Your task to perform on an android device: Open calendar and show me the third week of next month Image 0: 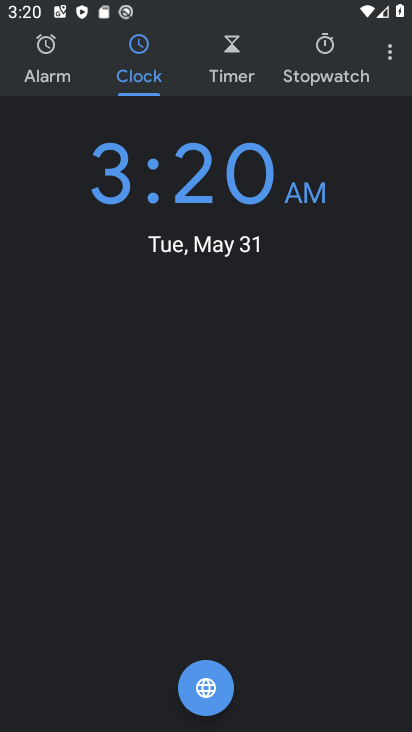
Step 0: press home button
Your task to perform on an android device: Open calendar and show me the third week of next month Image 1: 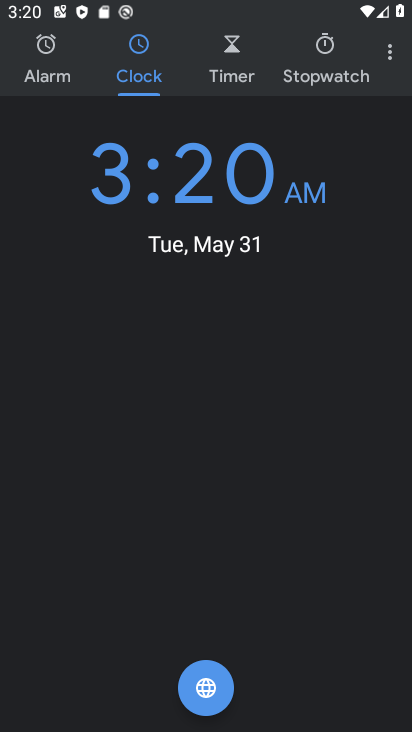
Step 1: press home button
Your task to perform on an android device: Open calendar and show me the third week of next month Image 2: 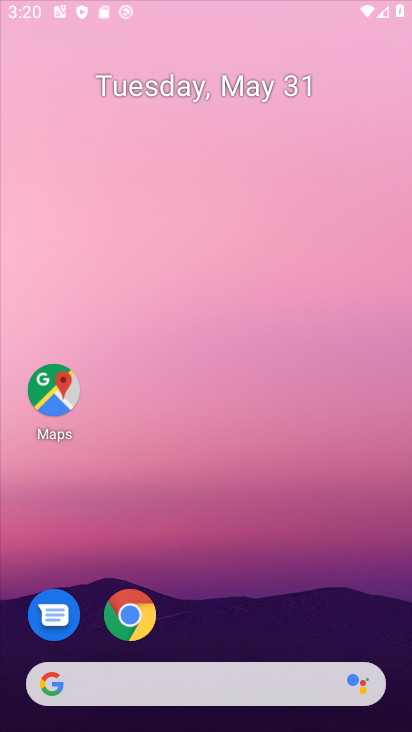
Step 2: press home button
Your task to perform on an android device: Open calendar and show me the third week of next month Image 3: 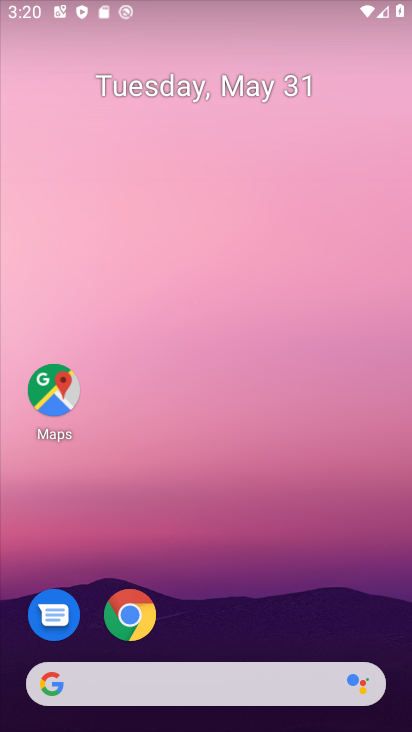
Step 3: press home button
Your task to perform on an android device: Open calendar and show me the third week of next month Image 4: 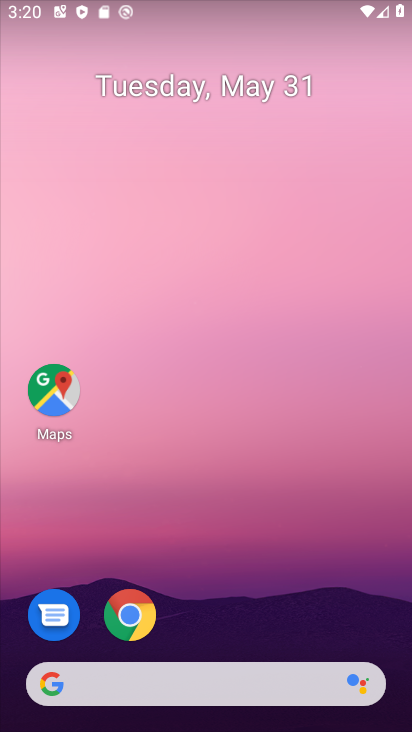
Step 4: drag from (230, 671) to (127, 110)
Your task to perform on an android device: Open calendar and show me the third week of next month Image 5: 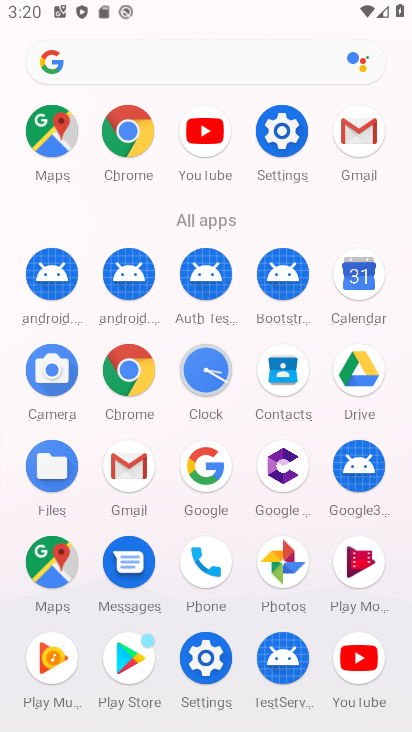
Step 5: click (357, 278)
Your task to perform on an android device: Open calendar and show me the third week of next month Image 6: 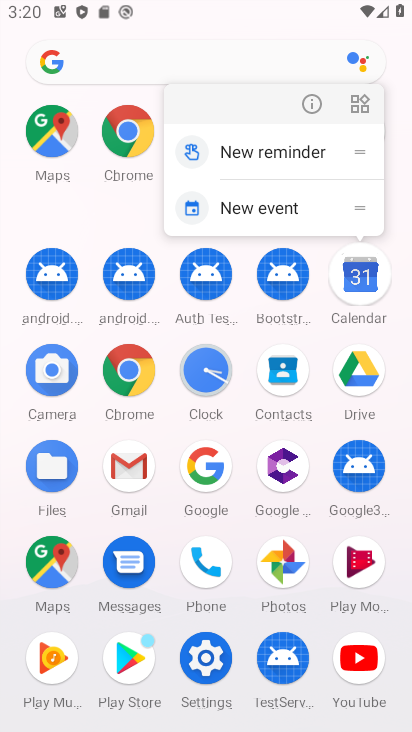
Step 6: click (363, 274)
Your task to perform on an android device: Open calendar and show me the third week of next month Image 7: 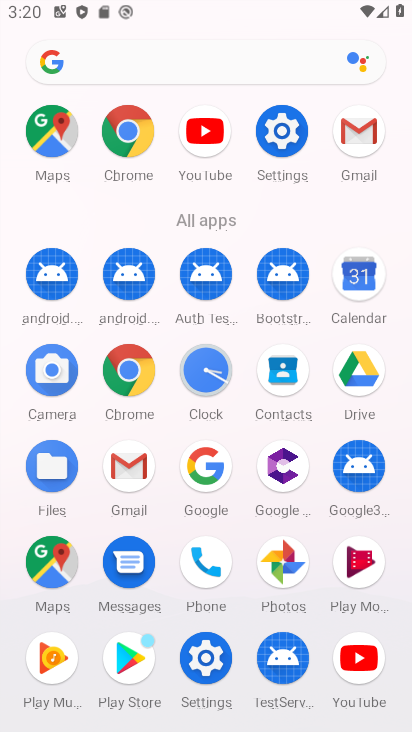
Step 7: click (363, 274)
Your task to perform on an android device: Open calendar and show me the third week of next month Image 8: 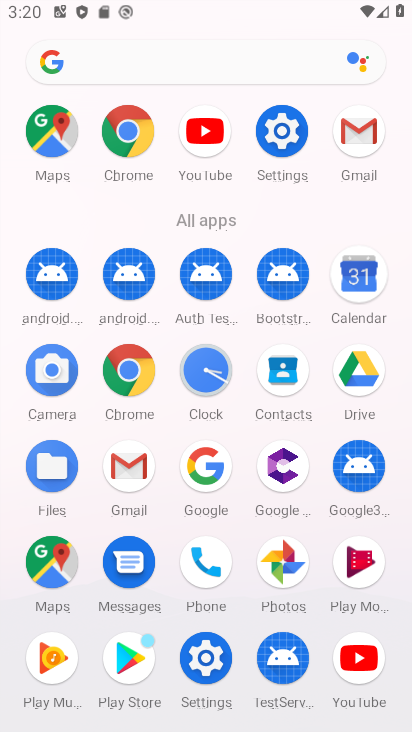
Step 8: click (364, 273)
Your task to perform on an android device: Open calendar and show me the third week of next month Image 9: 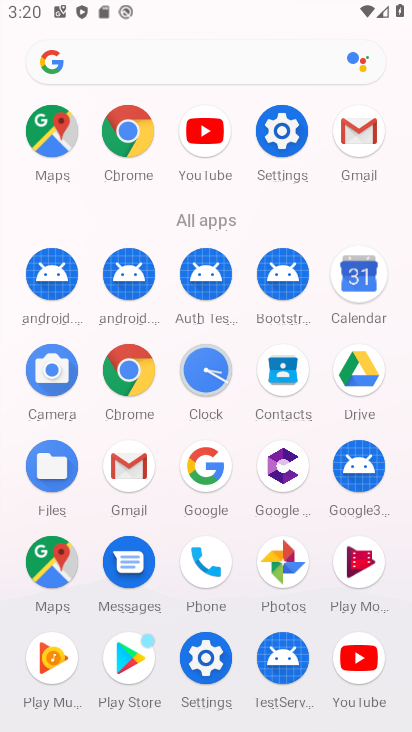
Step 9: click (364, 272)
Your task to perform on an android device: Open calendar and show me the third week of next month Image 10: 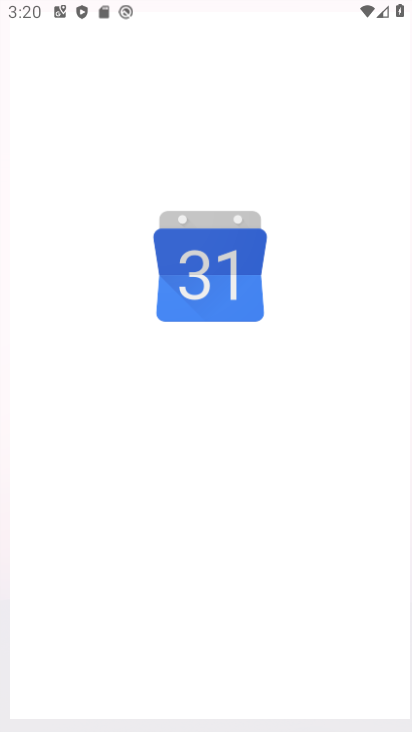
Step 10: click (354, 264)
Your task to perform on an android device: Open calendar and show me the third week of next month Image 11: 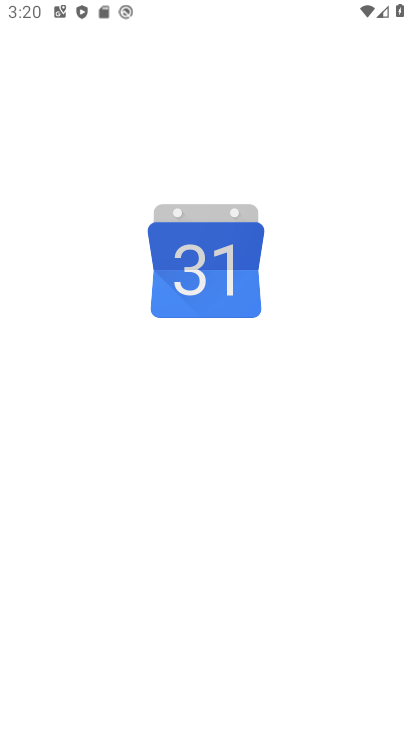
Step 11: click (354, 264)
Your task to perform on an android device: Open calendar and show me the third week of next month Image 12: 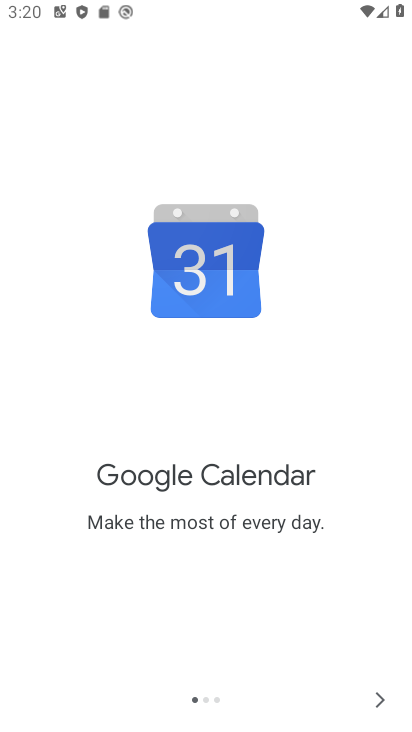
Step 12: click (379, 691)
Your task to perform on an android device: Open calendar and show me the third week of next month Image 13: 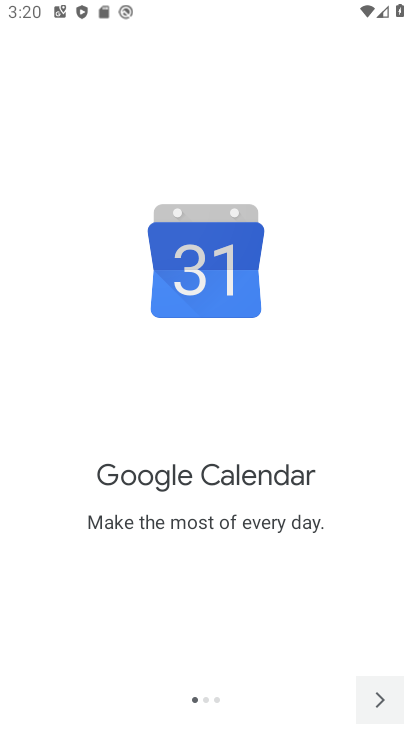
Step 13: click (379, 691)
Your task to perform on an android device: Open calendar and show me the third week of next month Image 14: 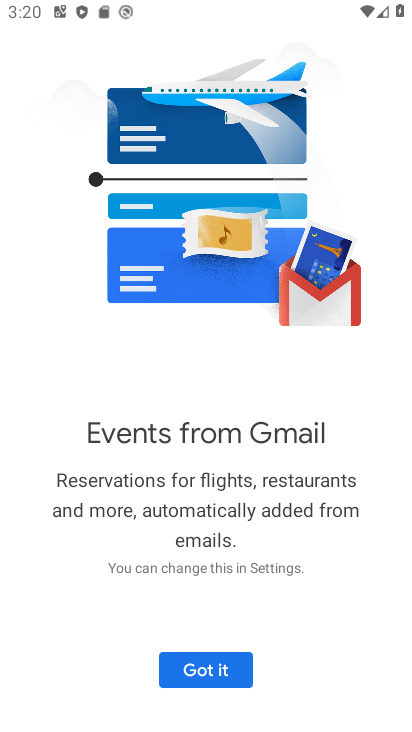
Step 14: click (379, 691)
Your task to perform on an android device: Open calendar and show me the third week of next month Image 15: 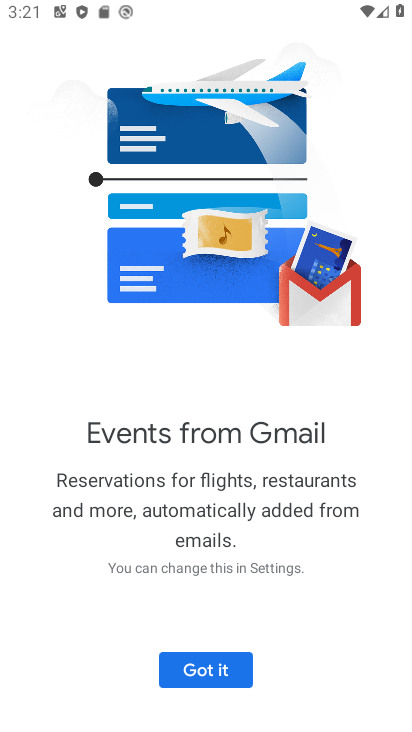
Step 15: click (206, 674)
Your task to perform on an android device: Open calendar and show me the third week of next month Image 16: 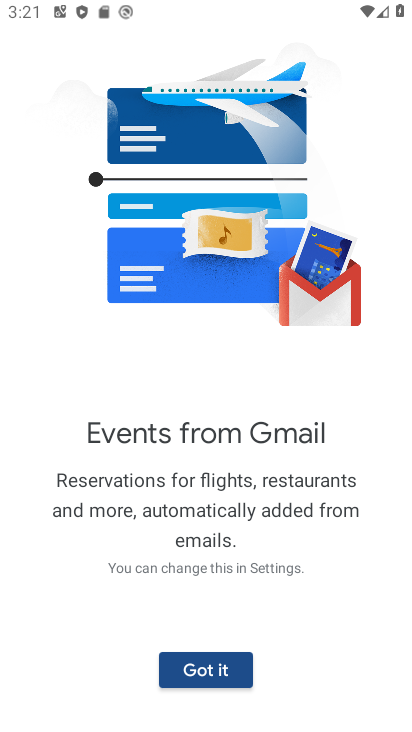
Step 16: click (200, 678)
Your task to perform on an android device: Open calendar and show me the third week of next month Image 17: 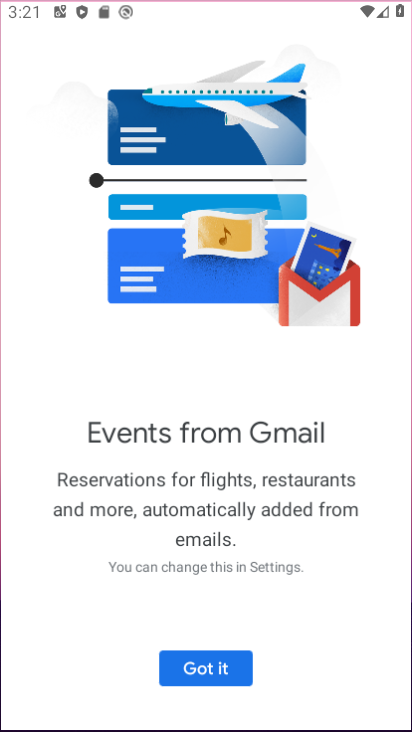
Step 17: click (200, 678)
Your task to perform on an android device: Open calendar and show me the third week of next month Image 18: 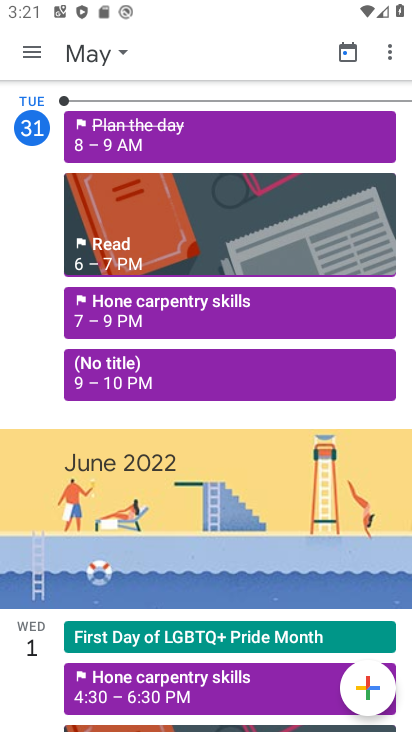
Step 18: click (121, 53)
Your task to perform on an android device: Open calendar and show me the third week of next month Image 19: 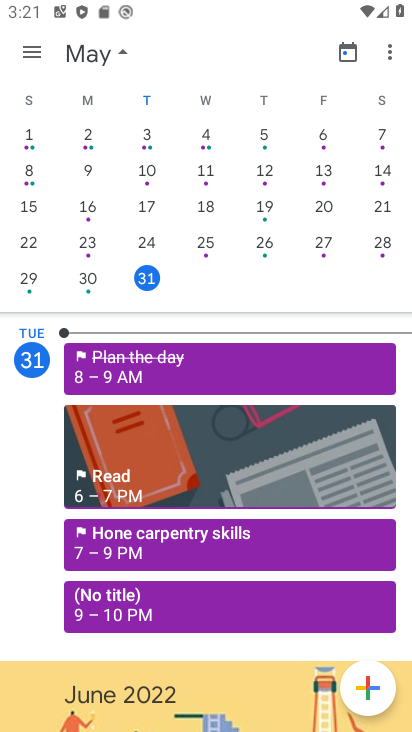
Step 19: drag from (252, 177) to (4, 266)
Your task to perform on an android device: Open calendar and show me the third week of next month Image 20: 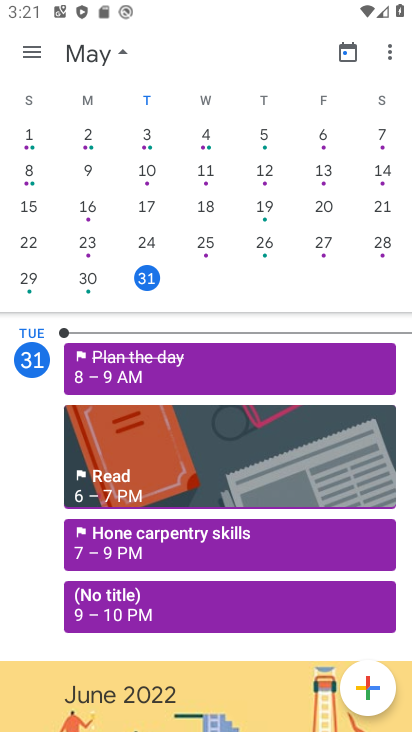
Step 20: drag from (284, 178) to (124, 305)
Your task to perform on an android device: Open calendar and show me the third week of next month Image 21: 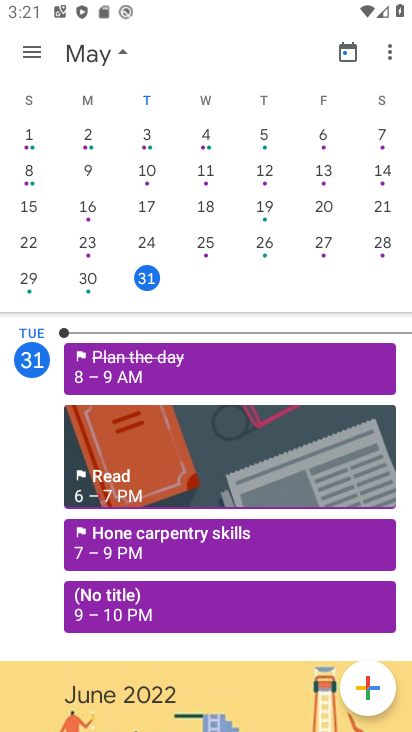
Step 21: drag from (231, 179) to (4, 248)
Your task to perform on an android device: Open calendar and show me the third week of next month Image 22: 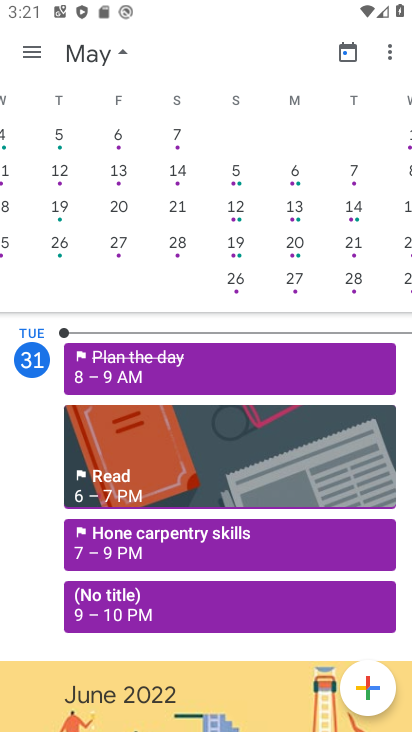
Step 22: drag from (294, 161) to (22, 177)
Your task to perform on an android device: Open calendar and show me the third week of next month Image 23: 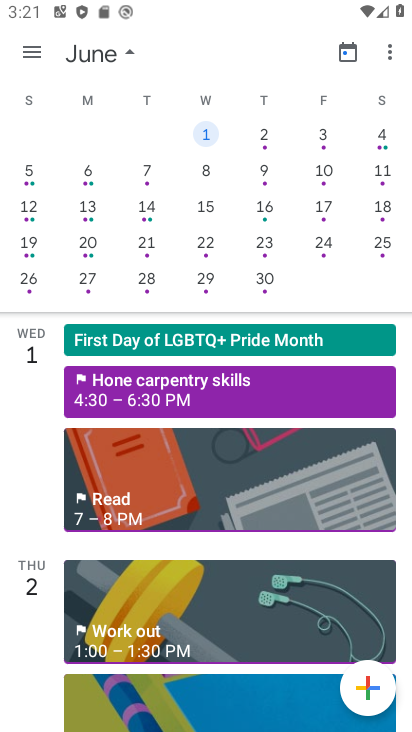
Step 23: click (204, 205)
Your task to perform on an android device: Open calendar and show me the third week of next month Image 24: 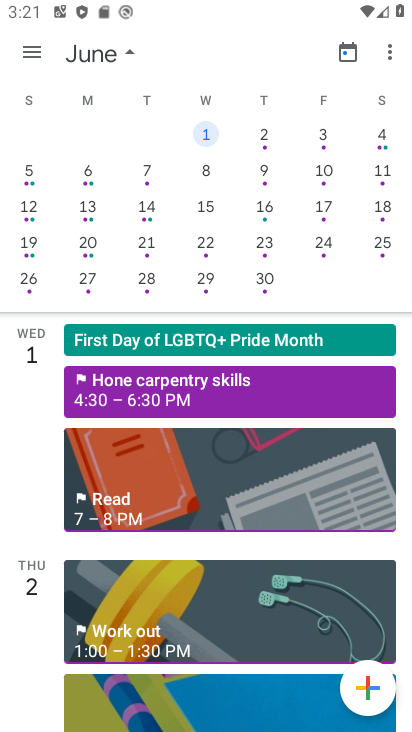
Step 24: click (204, 205)
Your task to perform on an android device: Open calendar and show me the third week of next month Image 25: 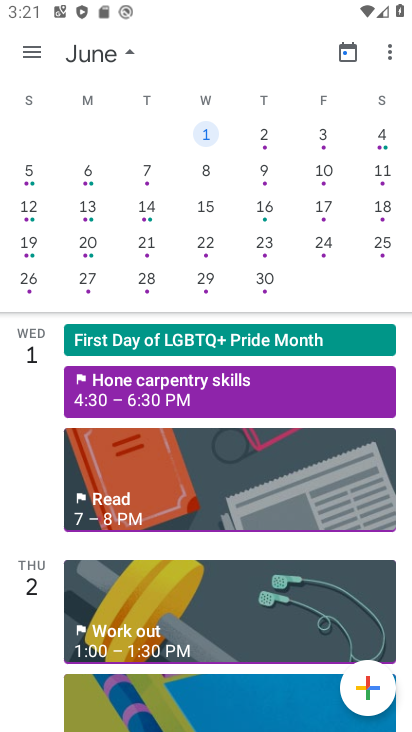
Step 25: click (204, 205)
Your task to perform on an android device: Open calendar and show me the third week of next month Image 26: 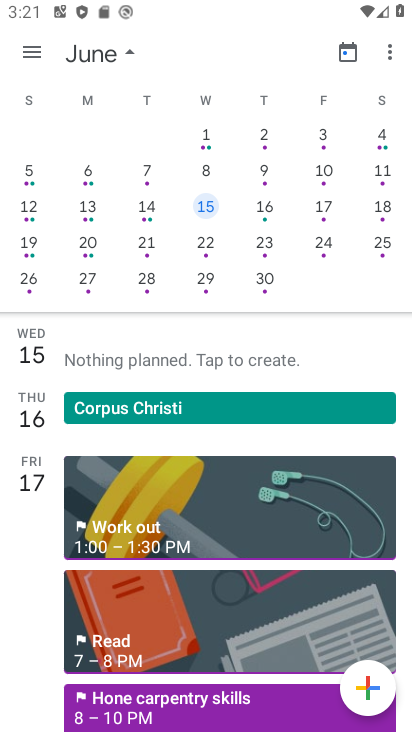
Step 26: click (204, 205)
Your task to perform on an android device: Open calendar and show me the third week of next month Image 27: 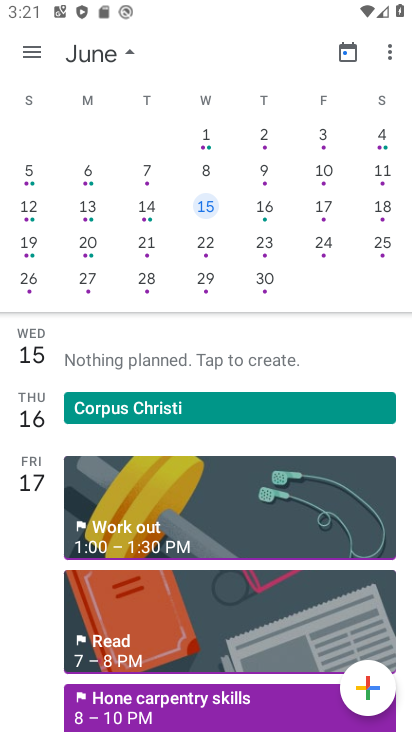
Step 27: click (204, 205)
Your task to perform on an android device: Open calendar and show me the third week of next month Image 28: 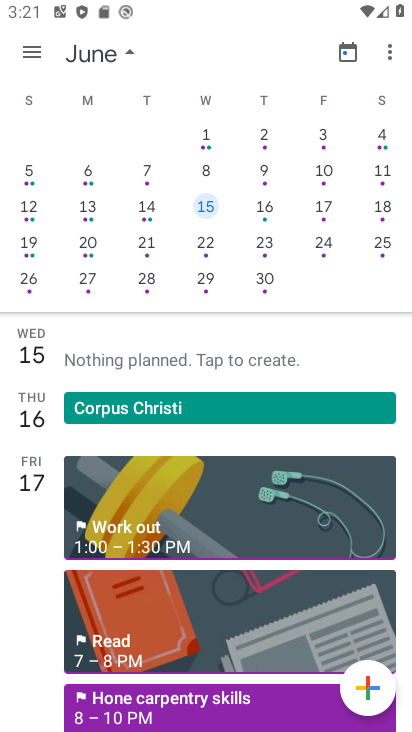
Step 28: task complete